Your task to perform on an android device: refresh tabs in the chrome app Image 0: 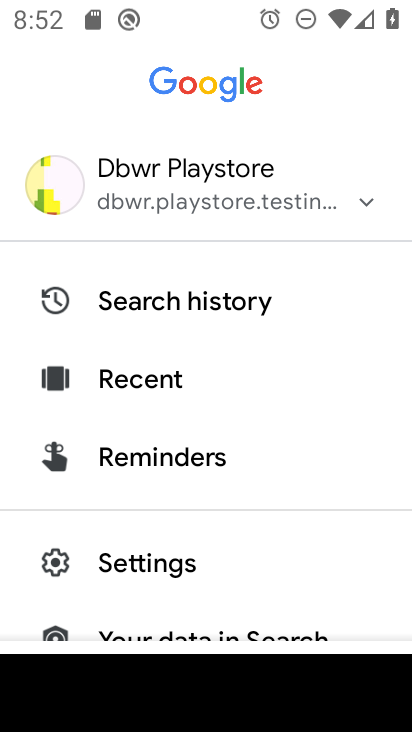
Step 0: press home button
Your task to perform on an android device: refresh tabs in the chrome app Image 1: 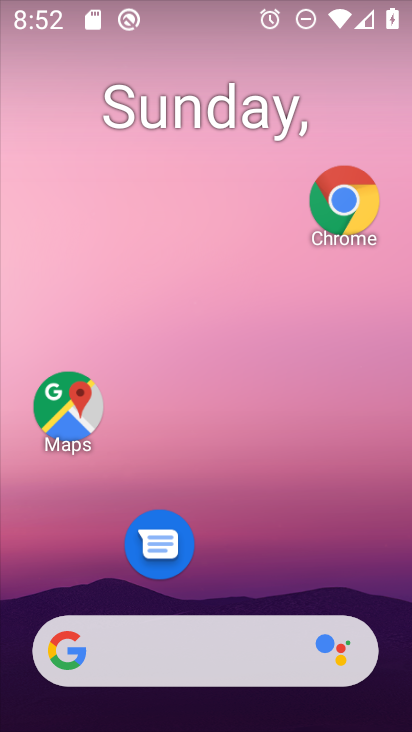
Step 1: click (343, 220)
Your task to perform on an android device: refresh tabs in the chrome app Image 2: 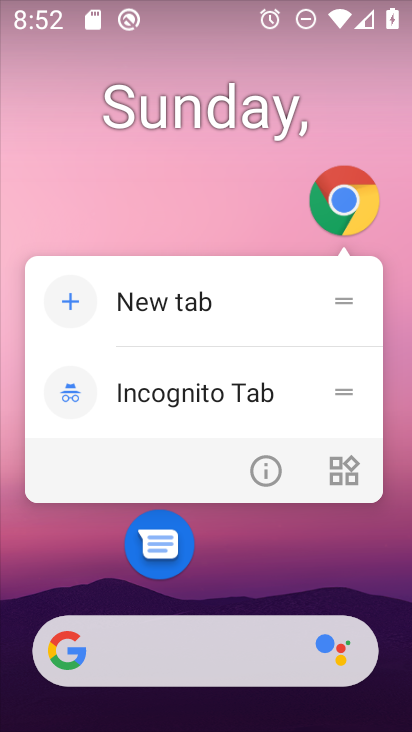
Step 2: click (342, 219)
Your task to perform on an android device: refresh tabs in the chrome app Image 3: 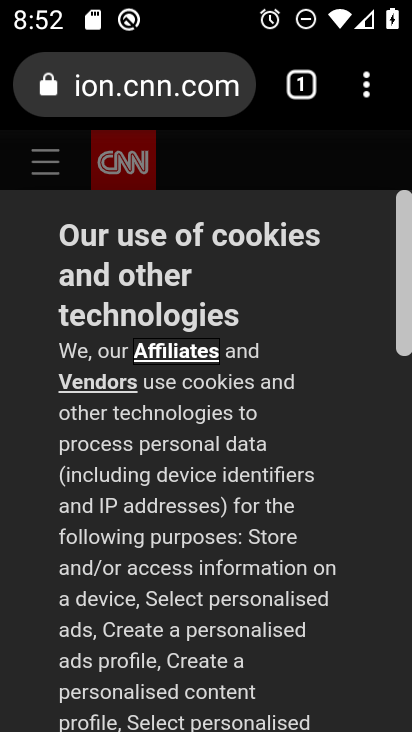
Step 3: click (388, 90)
Your task to perform on an android device: refresh tabs in the chrome app Image 4: 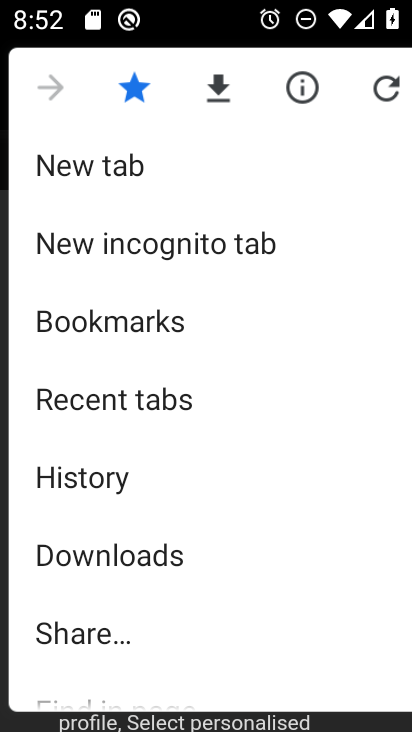
Step 4: click (388, 91)
Your task to perform on an android device: refresh tabs in the chrome app Image 5: 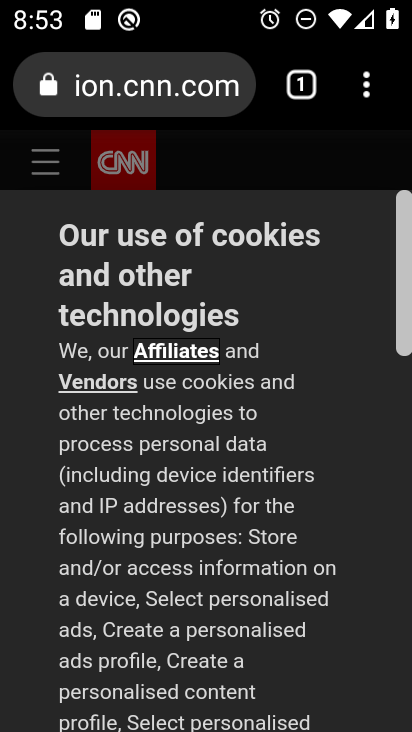
Step 5: task complete